Your task to perform on an android device: turn pop-ups off in chrome Image 0: 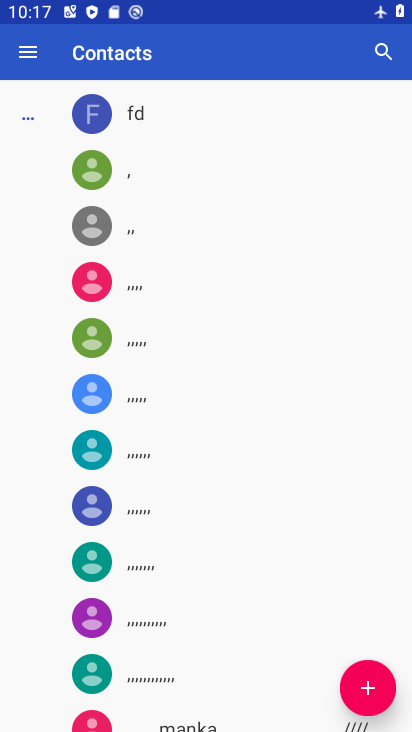
Step 0: press home button
Your task to perform on an android device: turn pop-ups off in chrome Image 1: 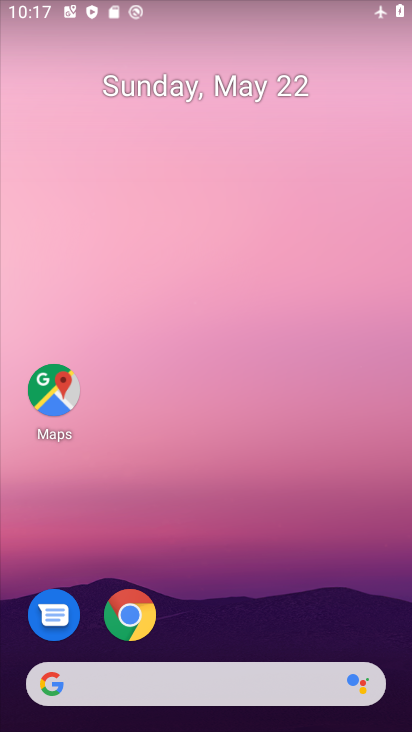
Step 1: click (129, 618)
Your task to perform on an android device: turn pop-ups off in chrome Image 2: 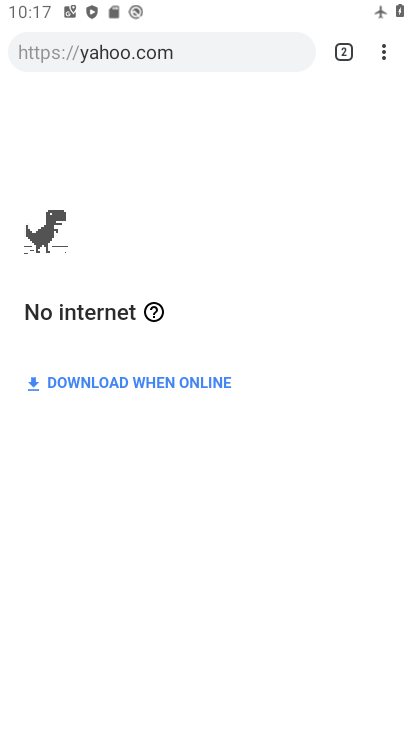
Step 2: click (381, 48)
Your task to perform on an android device: turn pop-ups off in chrome Image 3: 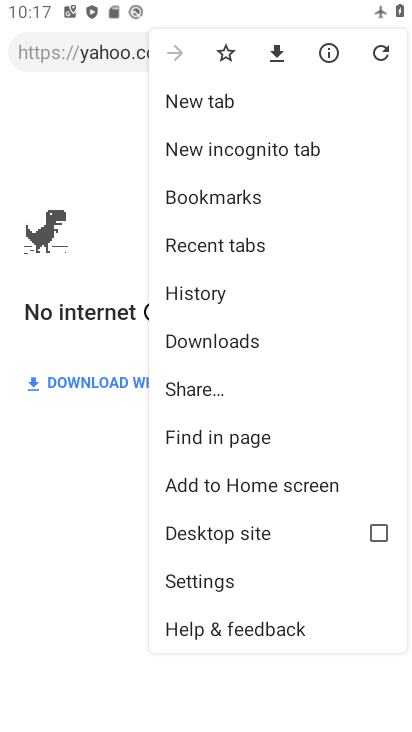
Step 3: click (231, 578)
Your task to perform on an android device: turn pop-ups off in chrome Image 4: 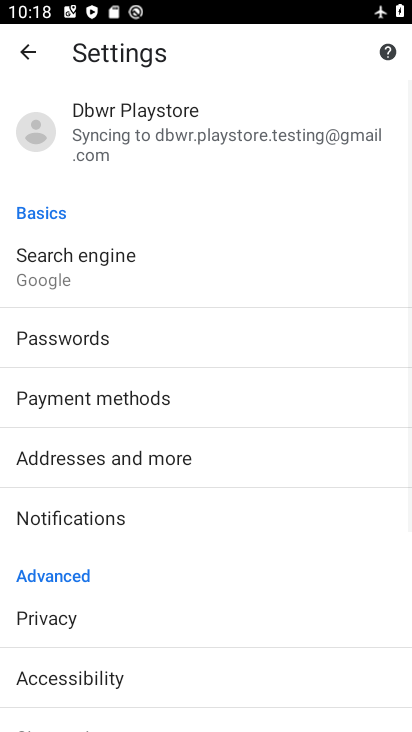
Step 4: drag from (167, 626) to (269, 91)
Your task to perform on an android device: turn pop-ups off in chrome Image 5: 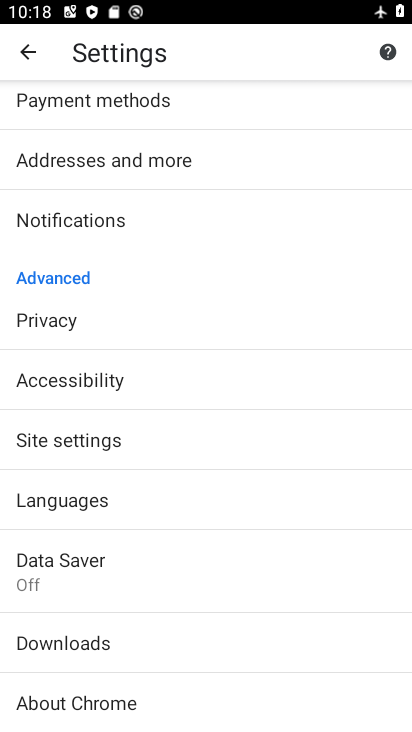
Step 5: drag from (135, 522) to (226, 187)
Your task to perform on an android device: turn pop-ups off in chrome Image 6: 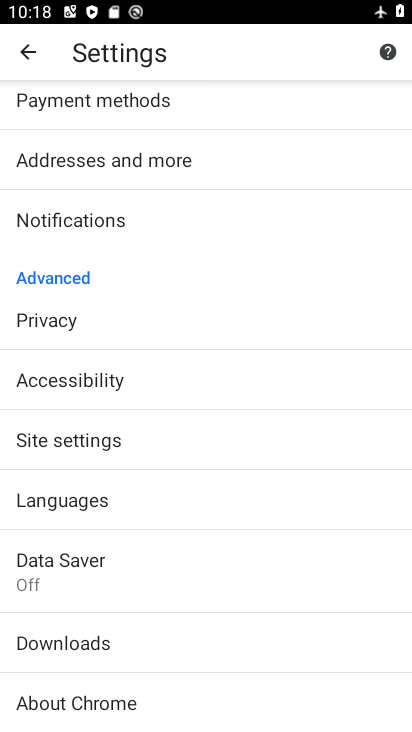
Step 6: click (86, 431)
Your task to perform on an android device: turn pop-ups off in chrome Image 7: 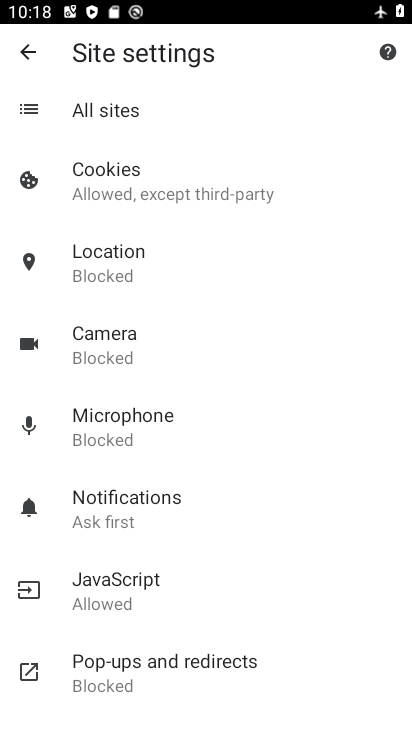
Step 7: drag from (279, 635) to (350, 375)
Your task to perform on an android device: turn pop-ups off in chrome Image 8: 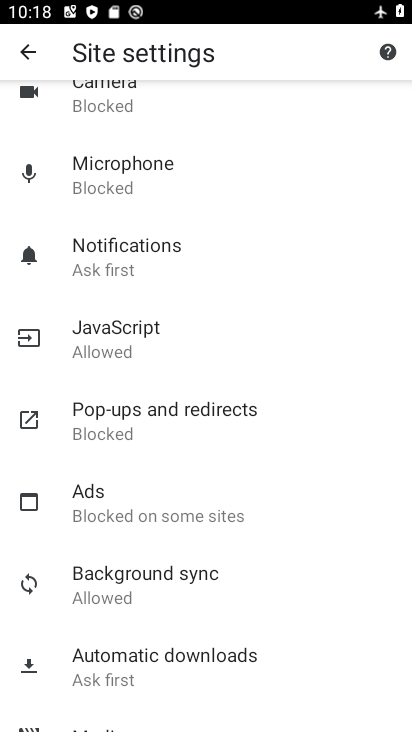
Step 8: click (193, 430)
Your task to perform on an android device: turn pop-ups off in chrome Image 9: 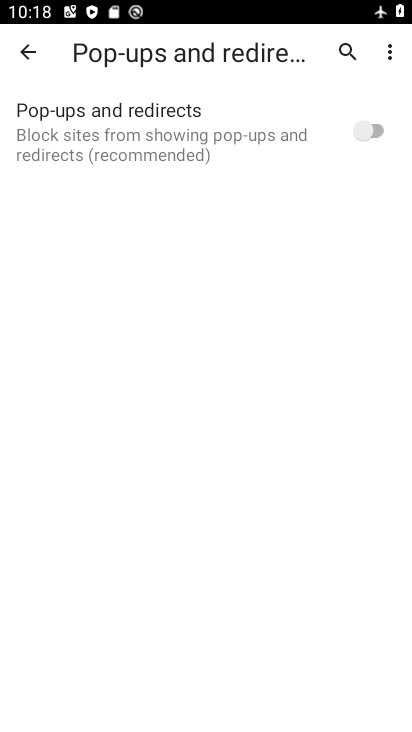
Step 9: task complete